Your task to perform on an android device: set an alarm Image 0: 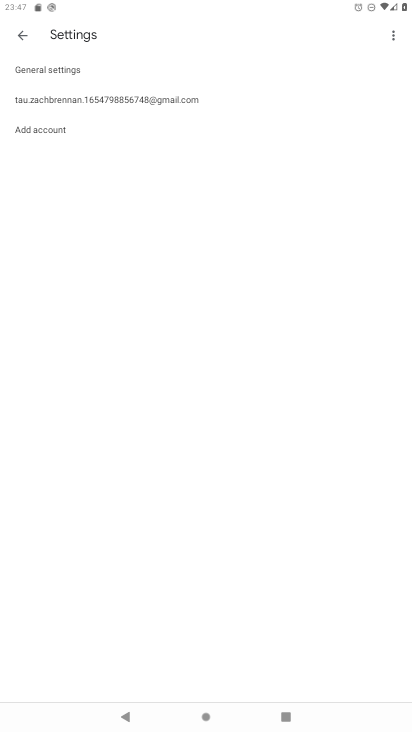
Step 0: drag from (199, 595) to (255, 189)
Your task to perform on an android device: set an alarm Image 1: 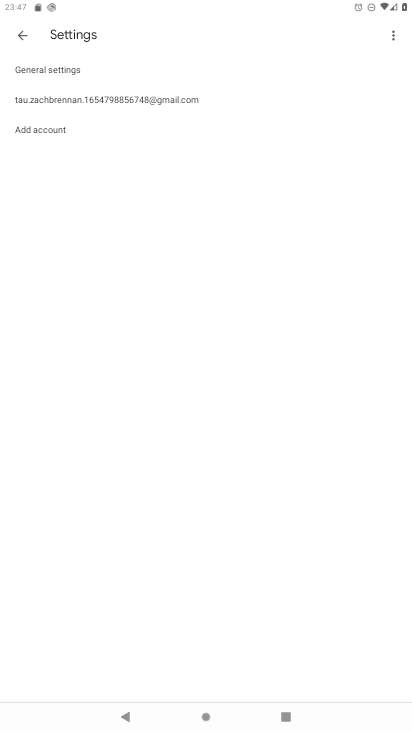
Step 1: press home button
Your task to perform on an android device: set an alarm Image 2: 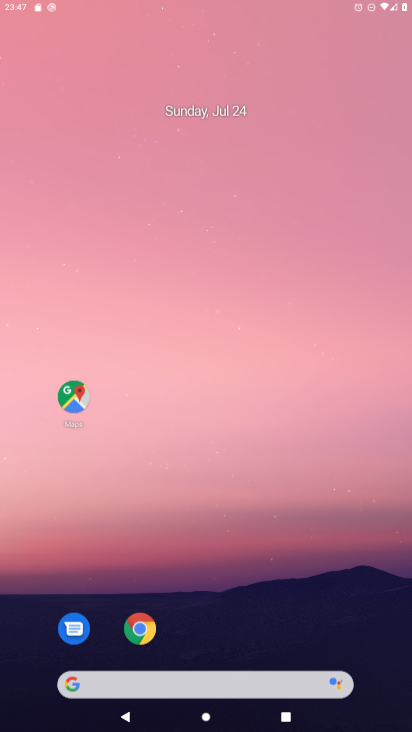
Step 2: drag from (144, 640) to (327, 85)
Your task to perform on an android device: set an alarm Image 3: 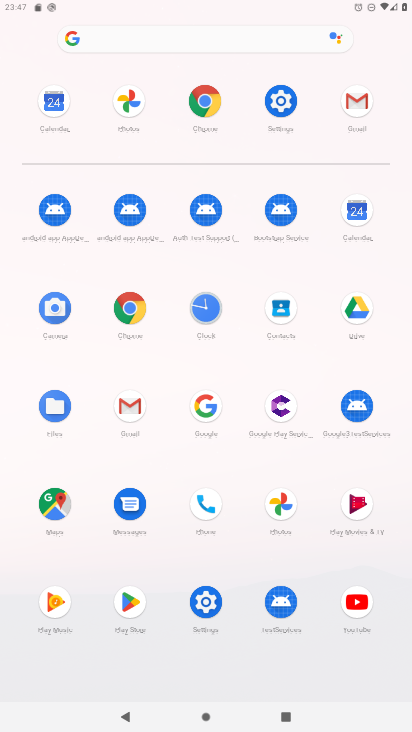
Step 3: click (199, 314)
Your task to perform on an android device: set an alarm Image 4: 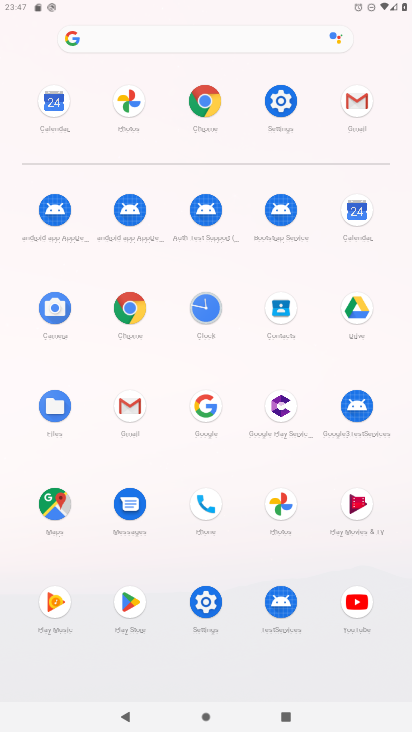
Step 4: click (199, 314)
Your task to perform on an android device: set an alarm Image 5: 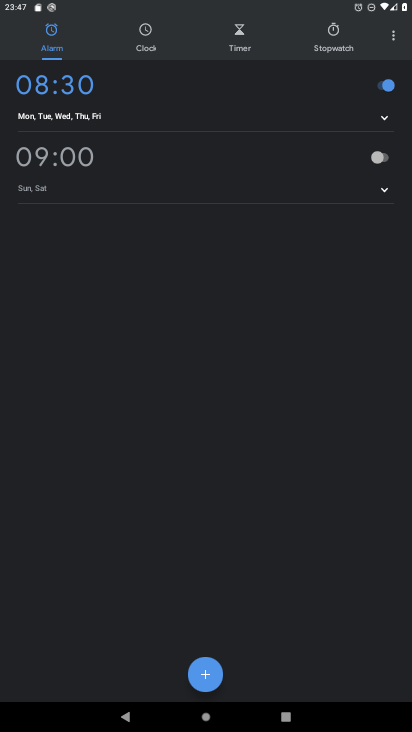
Step 5: click (381, 155)
Your task to perform on an android device: set an alarm Image 6: 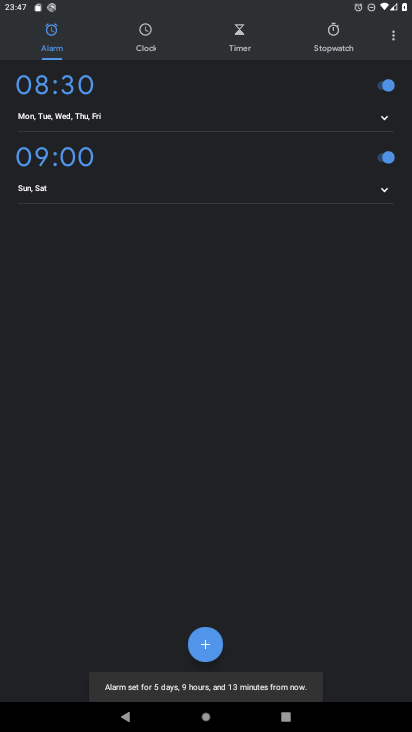
Step 6: task complete